Your task to perform on an android device: turn on sleep mode Image 0: 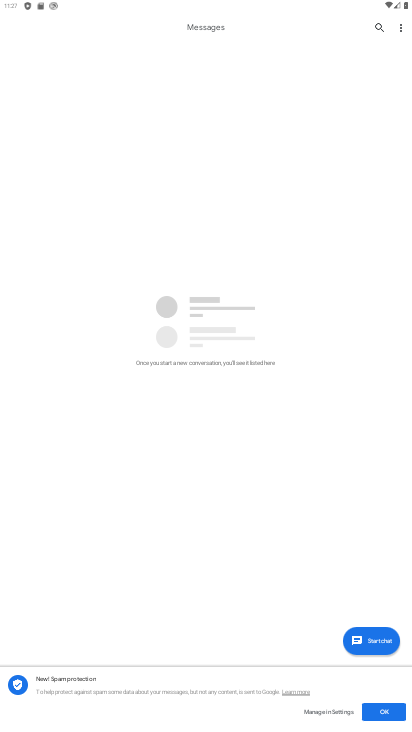
Step 0: press home button
Your task to perform on an android device: turn on sleep mode Image 1: 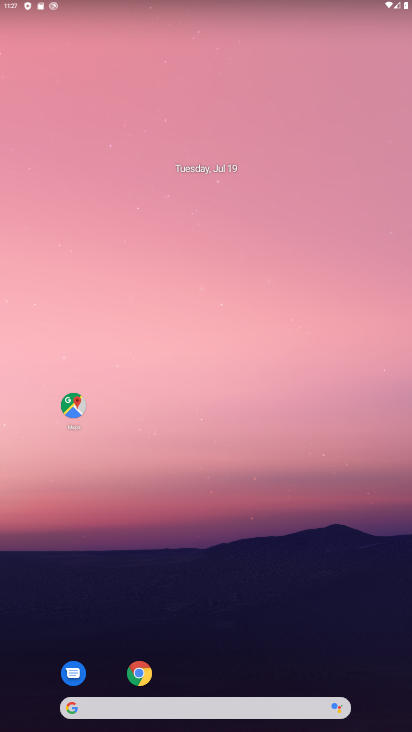
Step 1: drag from (22, 621) to (314, 163)
Your task to perform on an android device: turn on sleep mode Image 2: 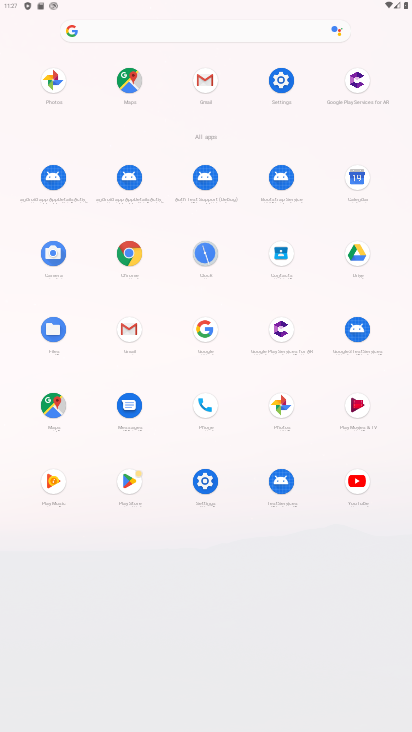
Step 2: click (274, 81)
Your task to perform on an android device: turn on sleep mode Image 3: 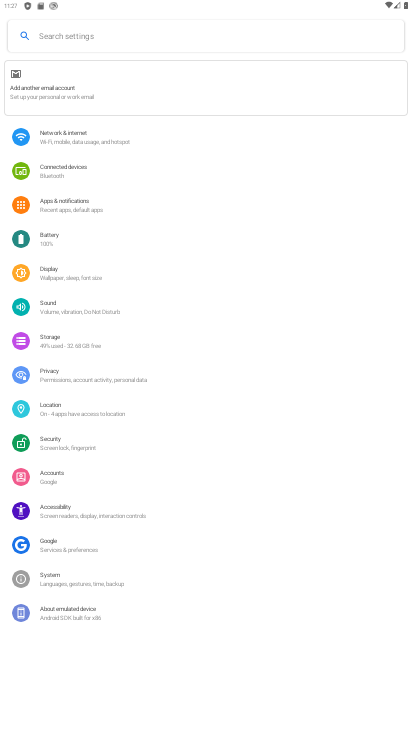
Step 3: task complete